Your task to perform on an android device: What is the recent news? Image 0: 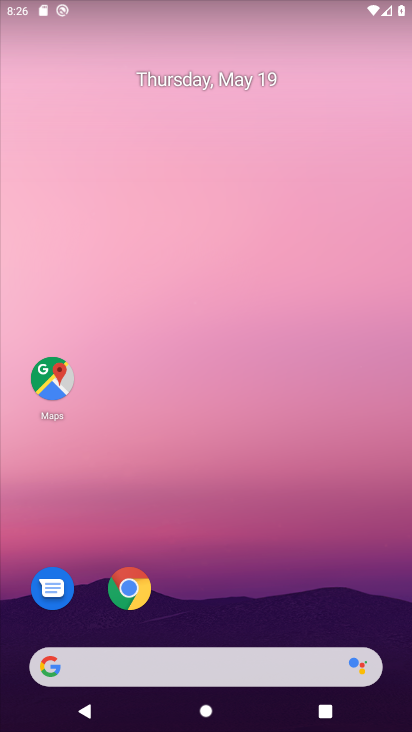
Step 0: drag from (0, 234) to (399, 280)
Your task to perform on an android device: What is the recent news? Image 1: 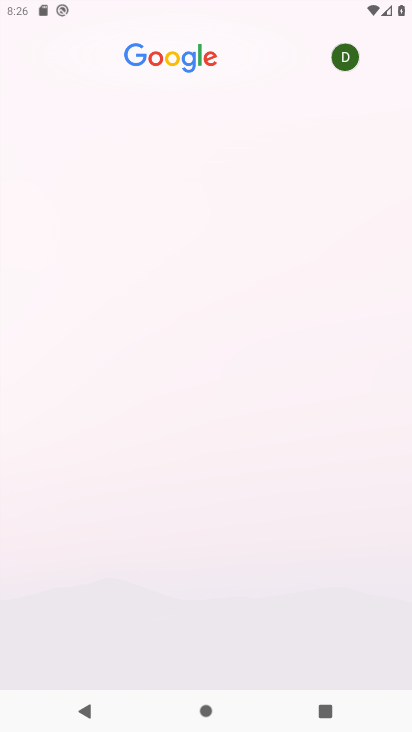
Step 1: task complete